Your task to perform on an android device: open a bookmark in the chrome app Image 0: 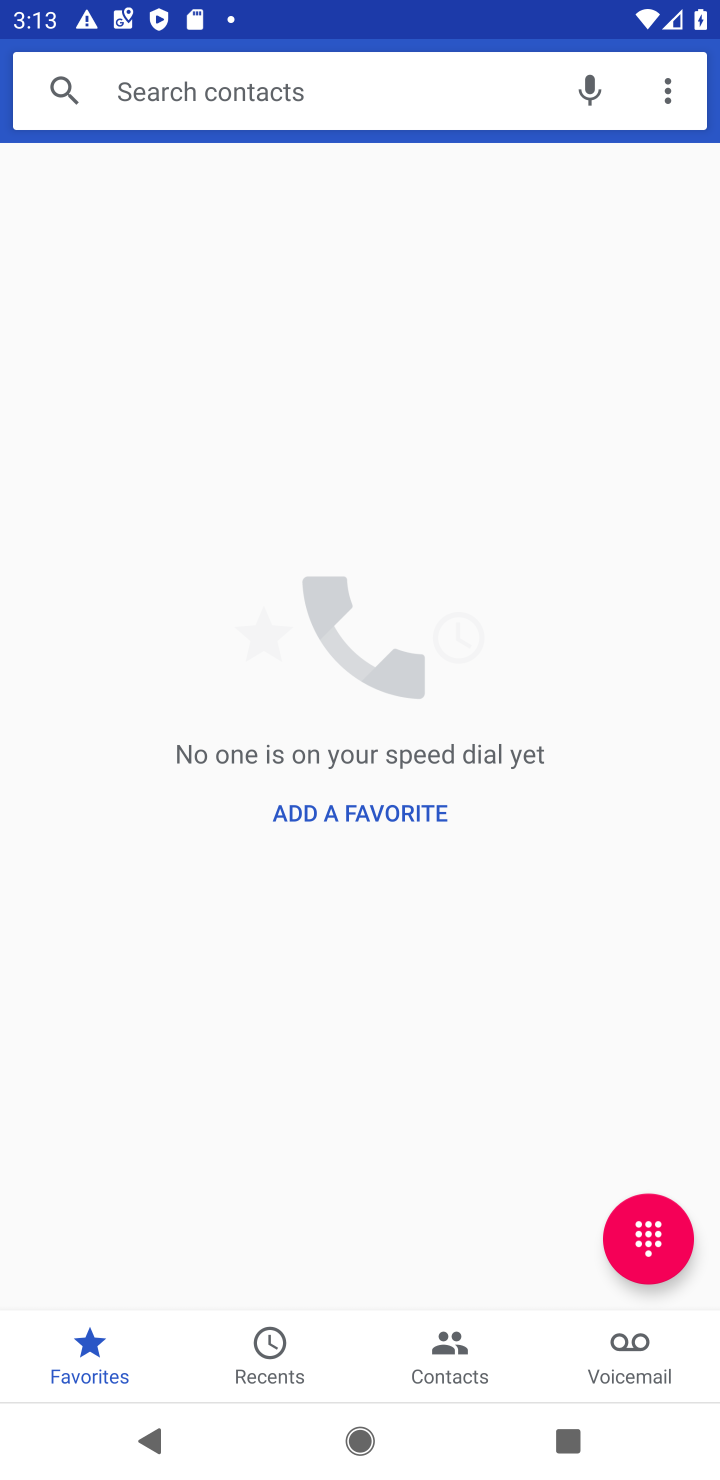
Step 0: press home button
Your task to perform on an android device: open a bookmark in the chrome app Image 1: 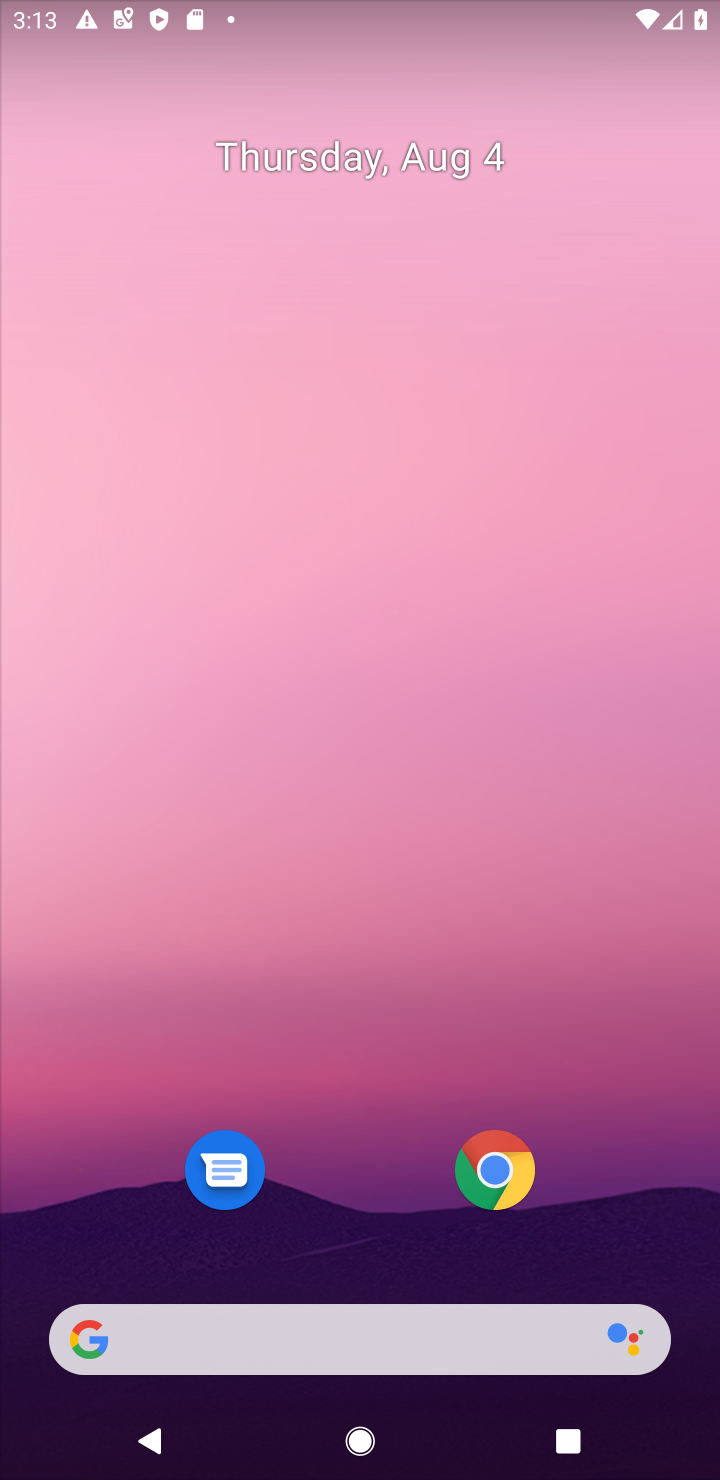
Step 1: click (500, 1166)
Your task to perform on an android device: open a bookmark in the chrome app Image 2: 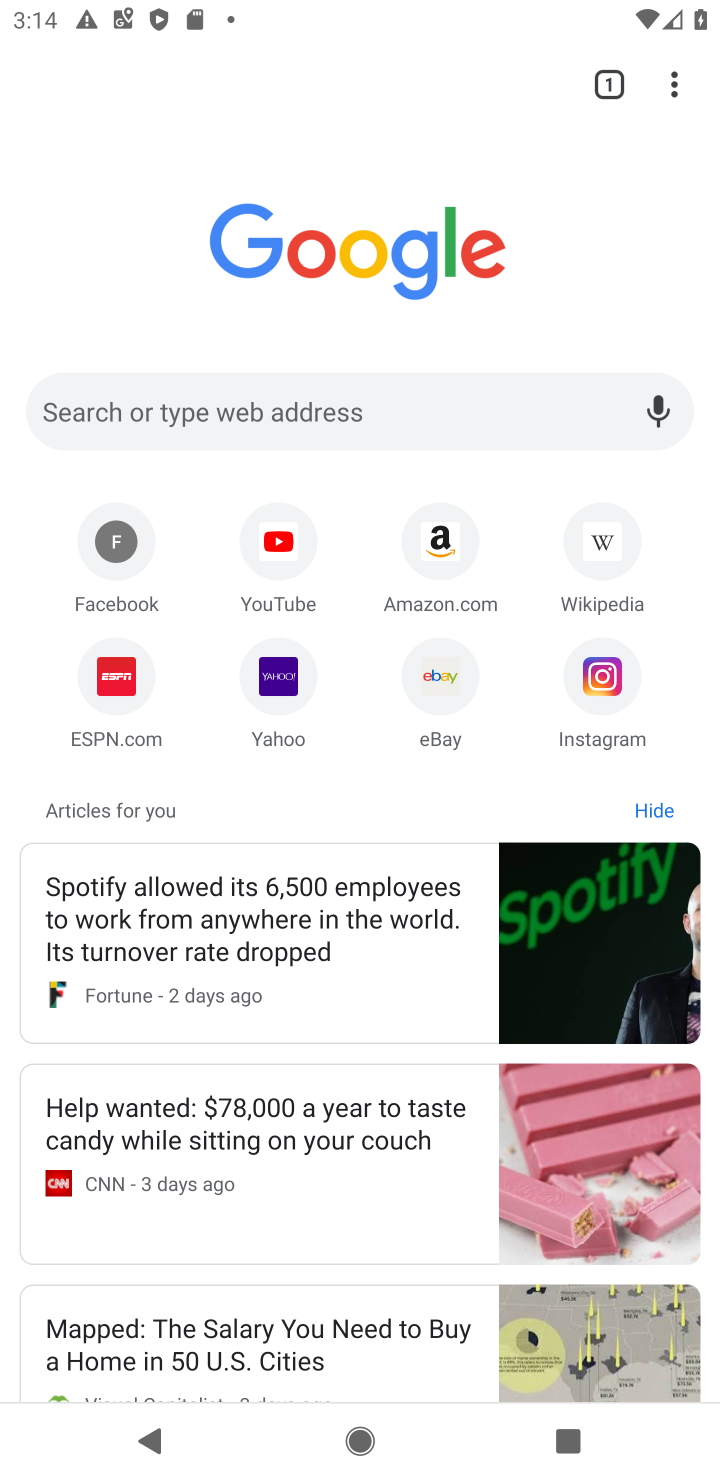
Step 2: click (668, 100)
Your task to perform on an android device: open a bookmark in the chrome app Image 3: 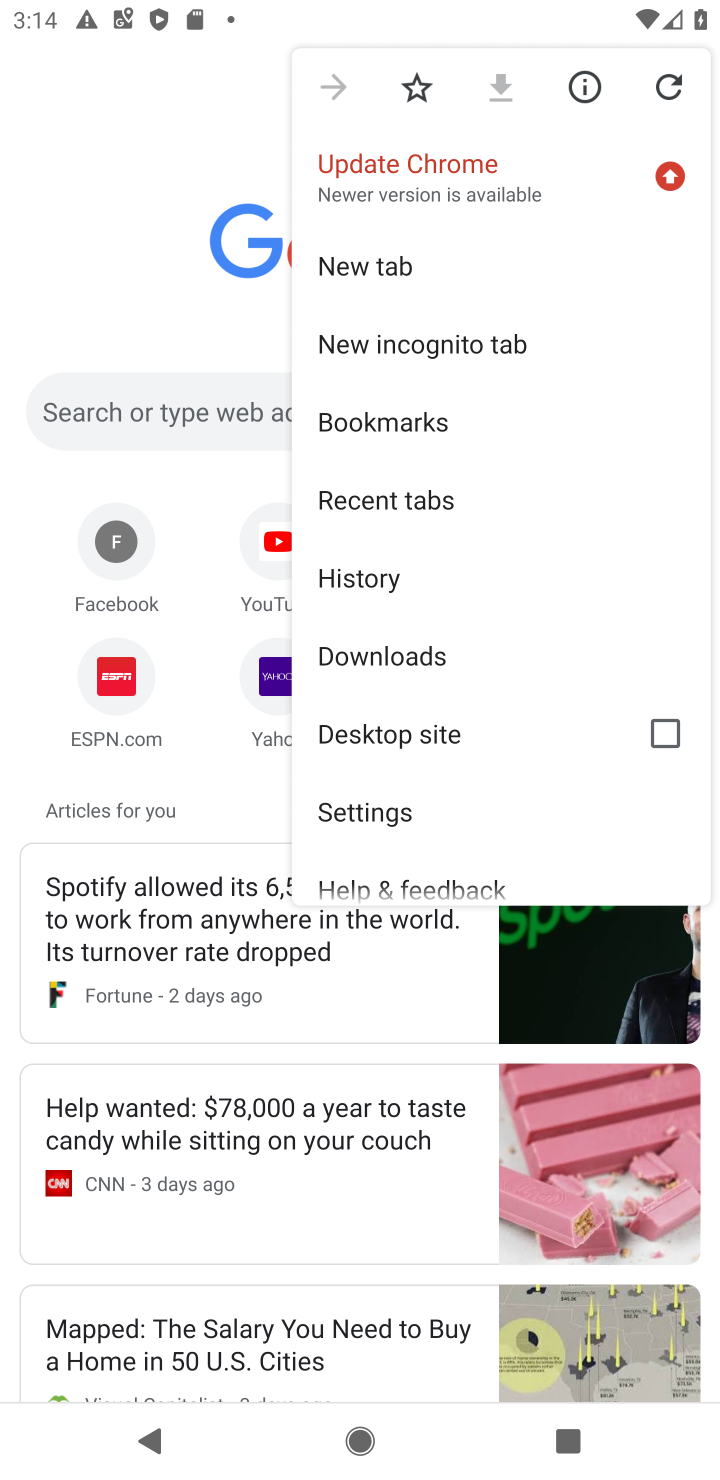
Step 3: click (361, 423)
Your task to perform on an android device: open a bookmark in the chrome app Image 4: 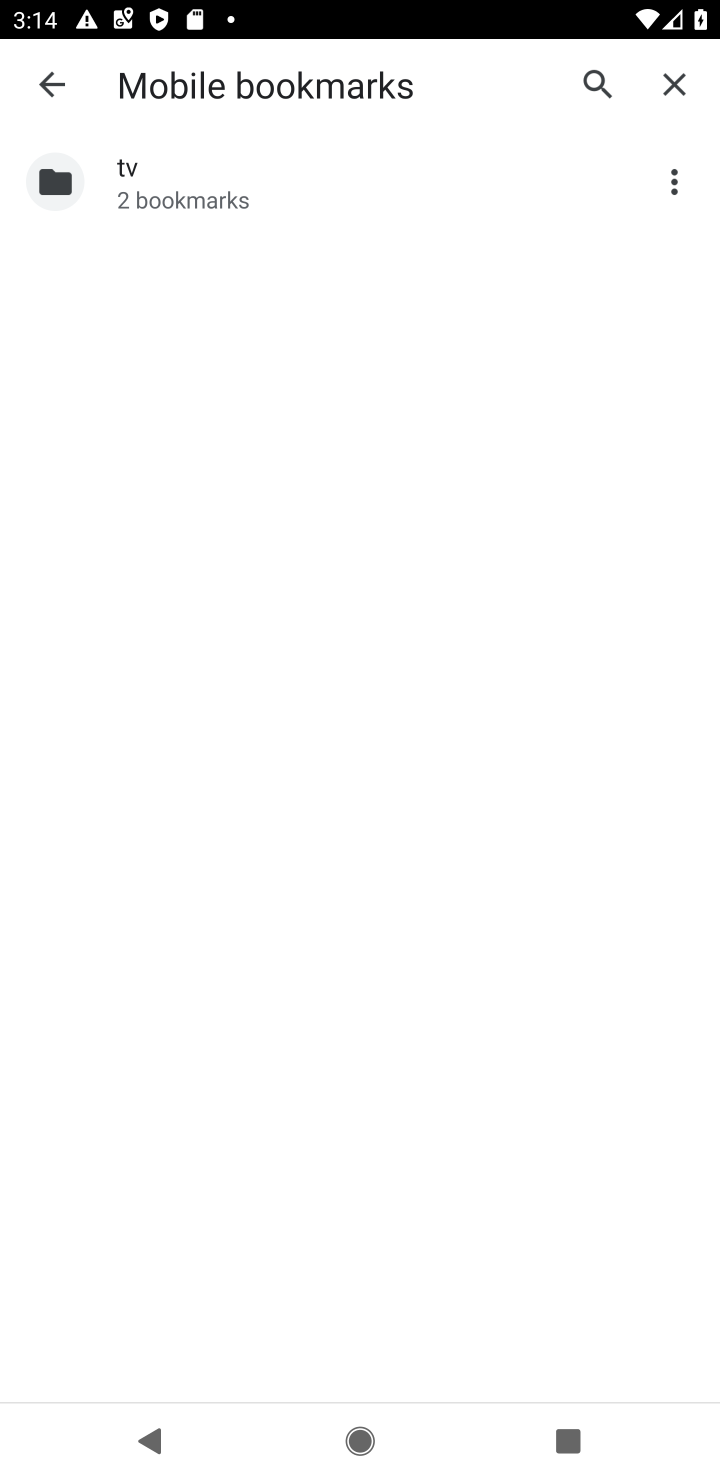
Step 4: task complete